Your task to perform on an android device: Go to internet settings Image 0: 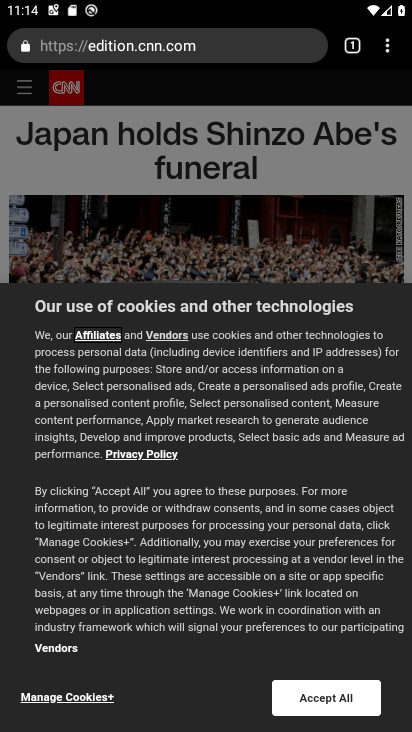
Step 0: press home button
Your task to perform on an android device: Go to internet settings Image 1: 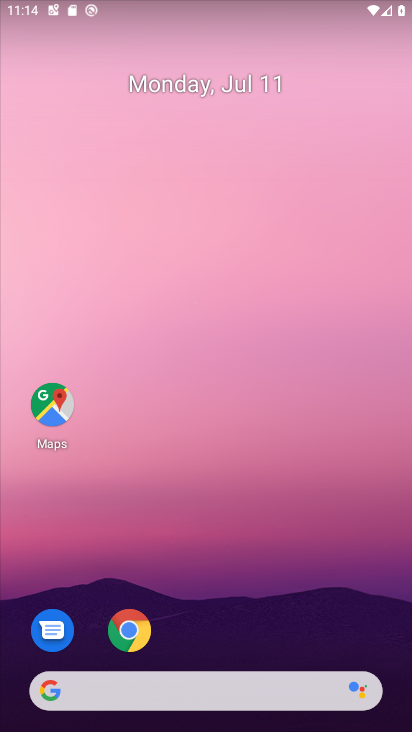
Step 1: drag from (255, 667) to (164, 13)
Your task to perform on an android device: Go to internet settings Image 2: 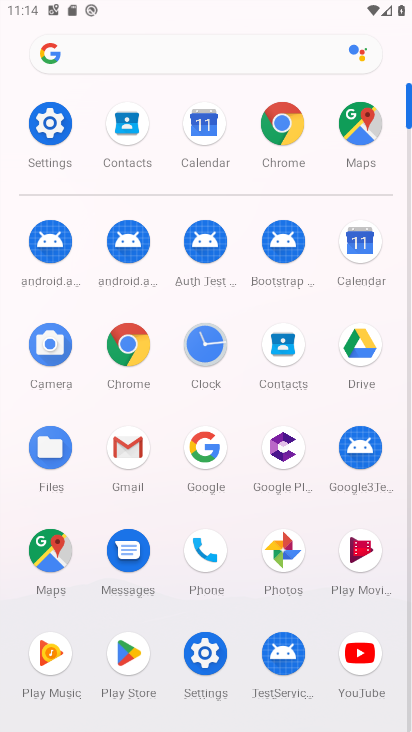
Step 2: click (216, 654)
Your task to perform on an android device: Go to internet settings Image 3: 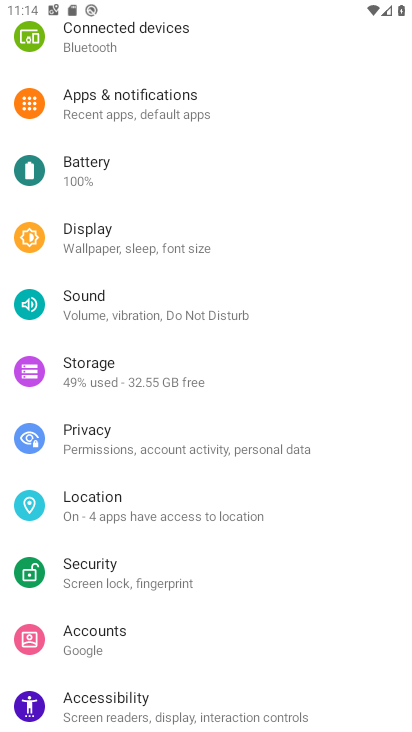
Step 3: drag from (157, 109) to (121, 594)
Your task to perform on an android device: Go to internet settings Image 4: 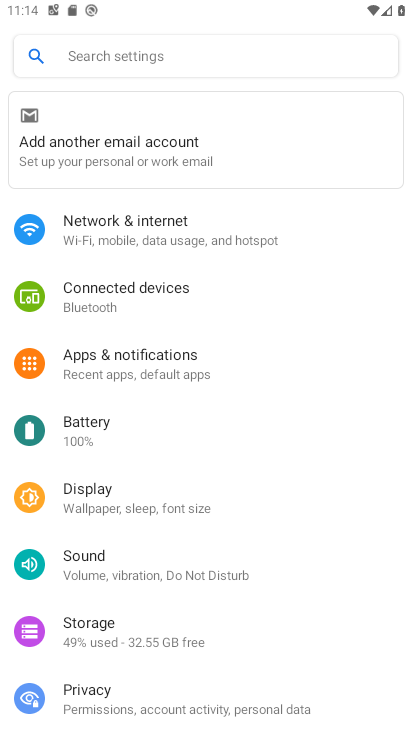
Step 4: click (153, 226)
Your task to perform on an android device: Go to internet settings Image 5: 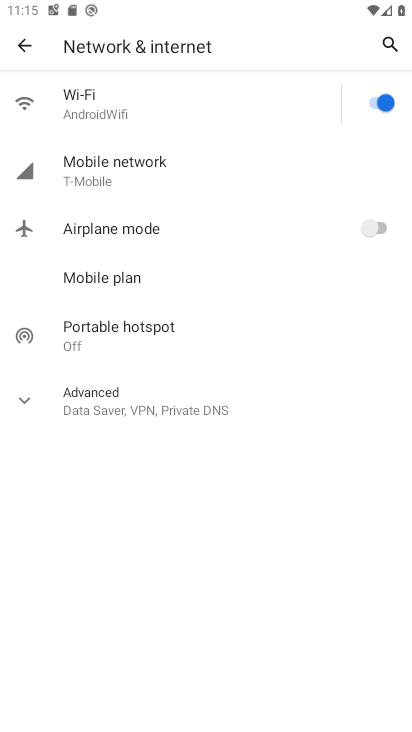
Step 5: task complete